Your task to perform on an android device: add a contact Image 0: 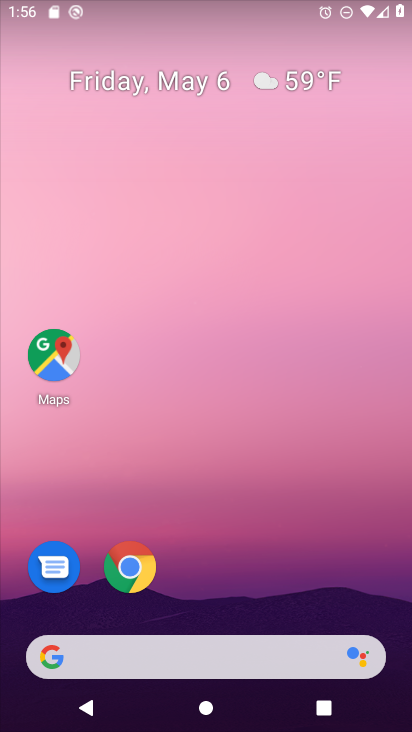
Step 0: drag from (236, 591) to (235, 33)
Your task to perform on an android device: add a contact Image 1: 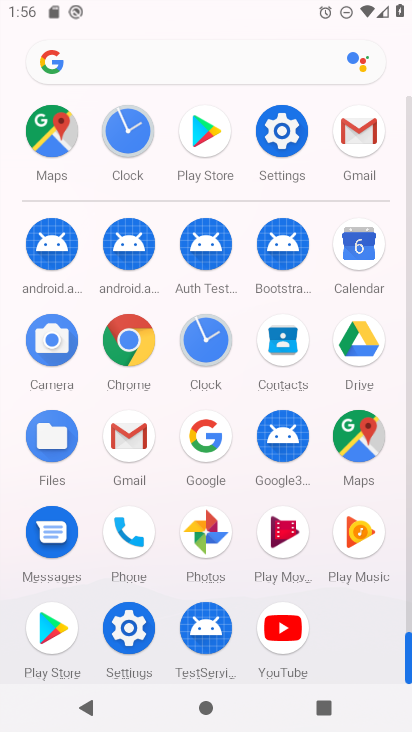
Step 1: click (285, 342)
Your task to perform on an android device: add a contact Image 2: 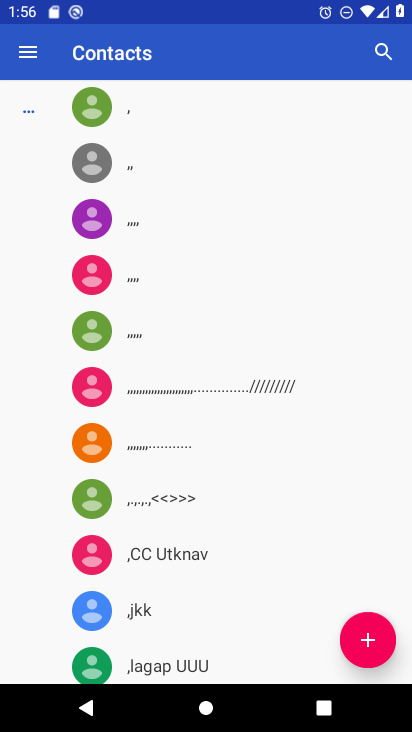
Step 2: click (350, 637)
Your task to perform on an android device: add a contact Image 3: 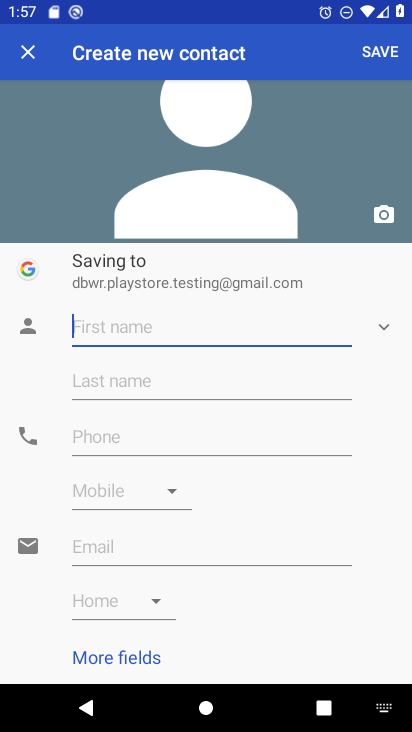
Step 3: type "tydx"
Your task to perform on an android device: add a contact Image 4: 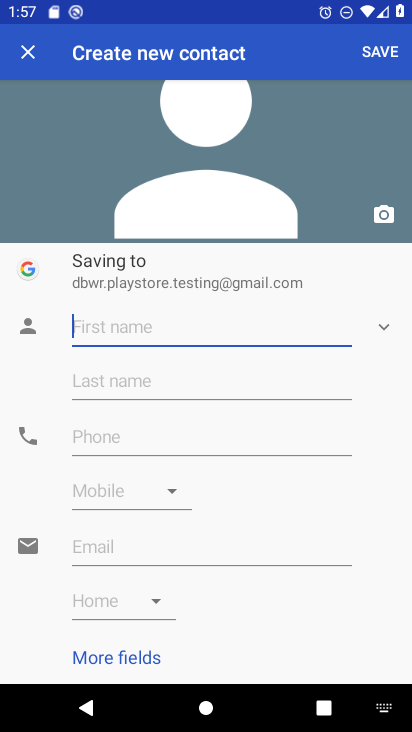
Step 4: click (119, 433)
Your task to perform on an android device: add a contact Image 5: 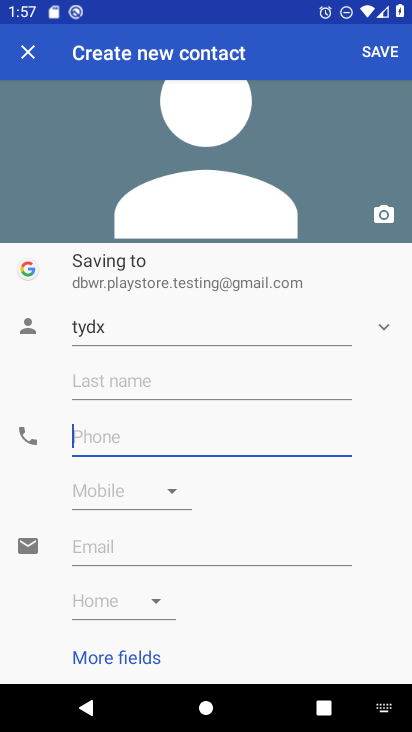
Step 5: type "9876543210"
Your task to perform on an android device: add a contact Image 6: 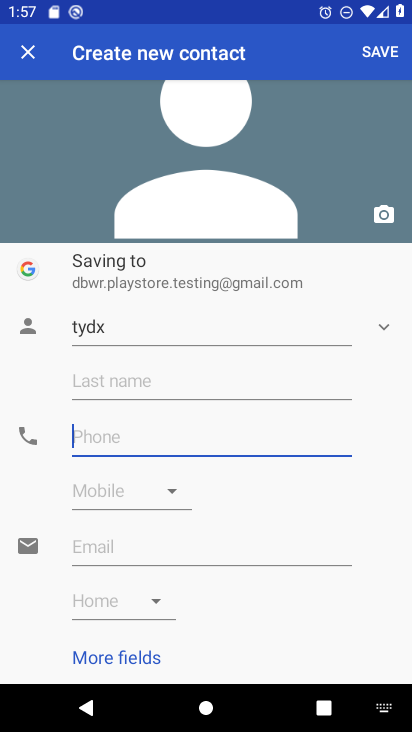
Step 6: click (397, 49)
Your task to perform on an android device: add a contact Image 7: 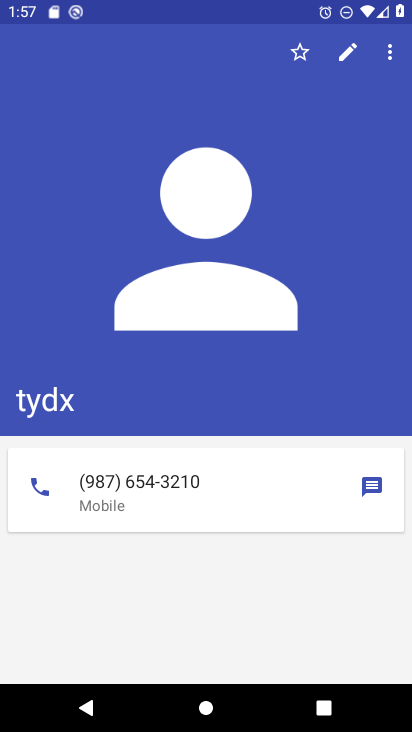
Step 7: task complete